Your task to perform on an android device: turn pop-ups on in chrome Image 0: 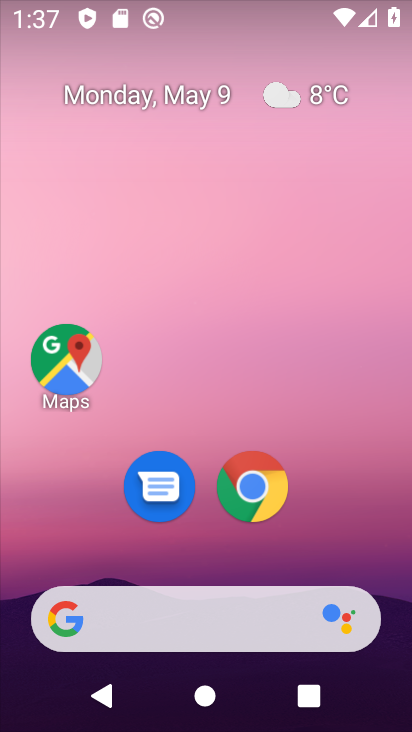
Step 0: click (269, 485)
Your task to perform on an android device: turn pop-ups on in chrome Image 1: 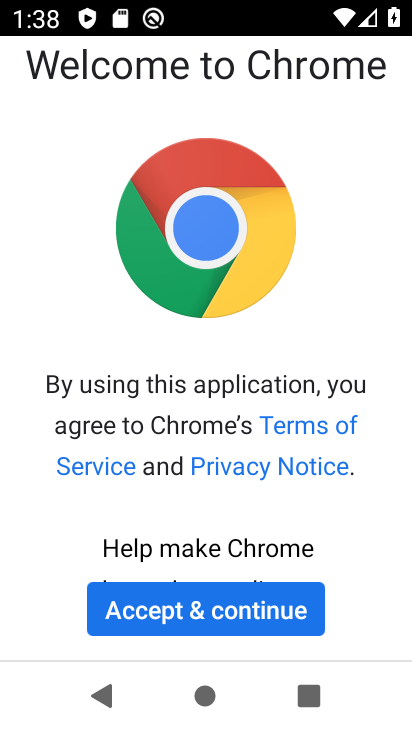
Step 1: click (254, 624)
Your task to perform on an android device: turn pop-ups on in chrome Image 2: 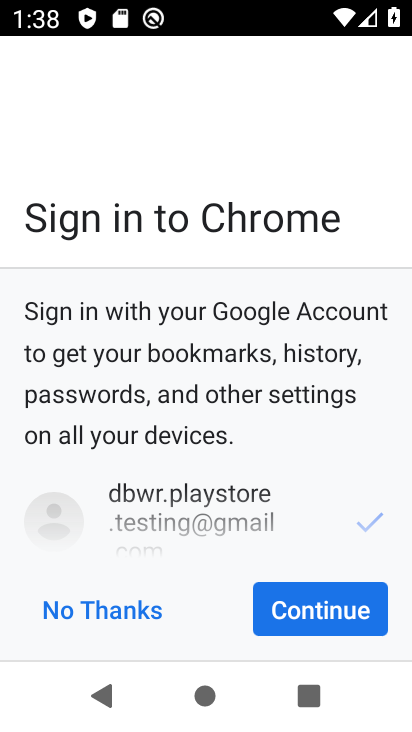
Step 2: click (306, 614)
Your task to perform on an android device: turn pop-ups on in chrome Image 3: 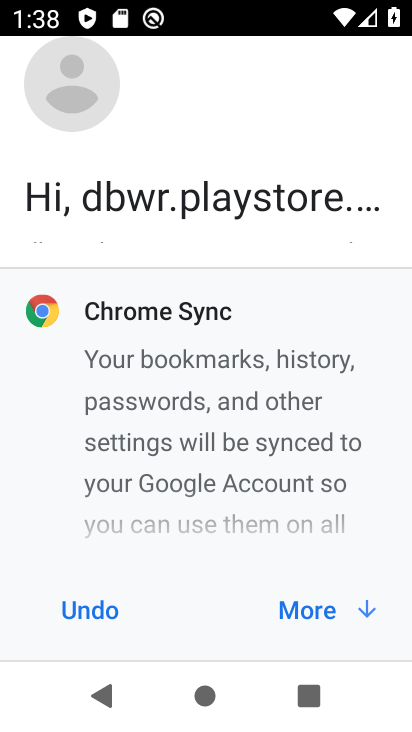
Step 3: click (309, 612)
Your task to perform on an android device: turn pop-ups on in chrome Image 4: 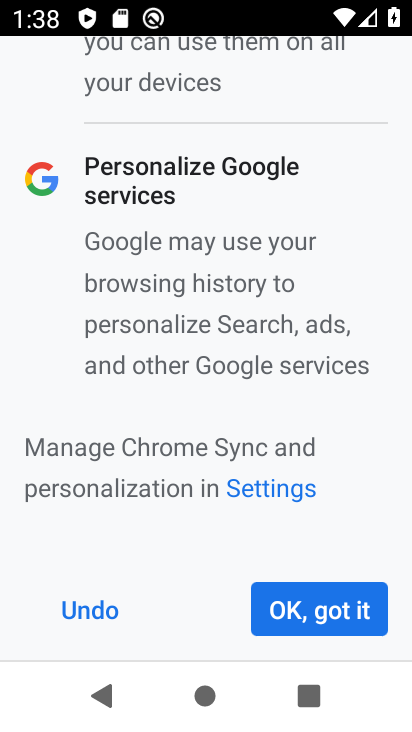
Step 4: click (309, 612)
Your task to perform on an android device: turn pop-ups on in chrome Image 5: 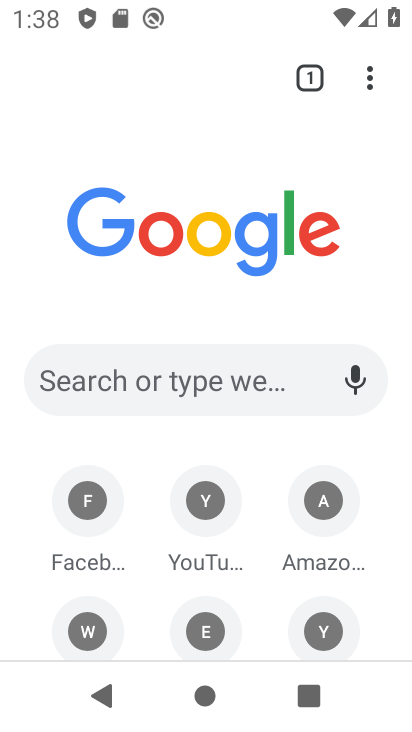
Step 5: click (369, 74)
Your task to perform on an android device: turn pop-ups on in chrome Image 6: 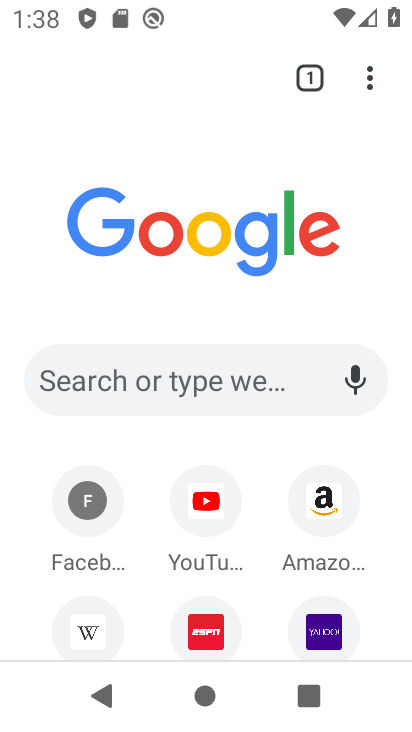
Step 6: click (369, 82)
Your task to perform on an android device: turn pop-ups on in chrome Image 7: 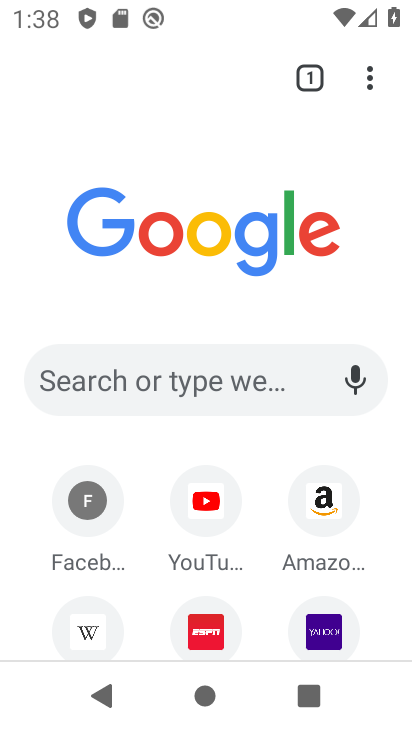
Step 7: click (374, 85)
Your task to perform on an android device: turn pop-ups on in chrome Image 8: 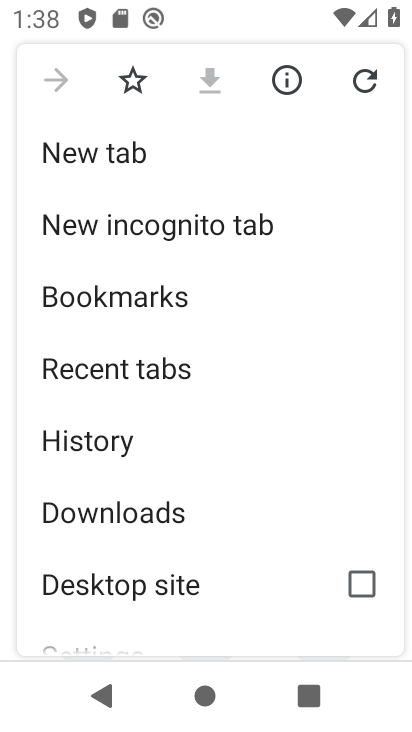
Step 8: drag from (203, 600) to (231, 129)
Your task to perform on an android device: turn pop-ups on in chrome Image 9: 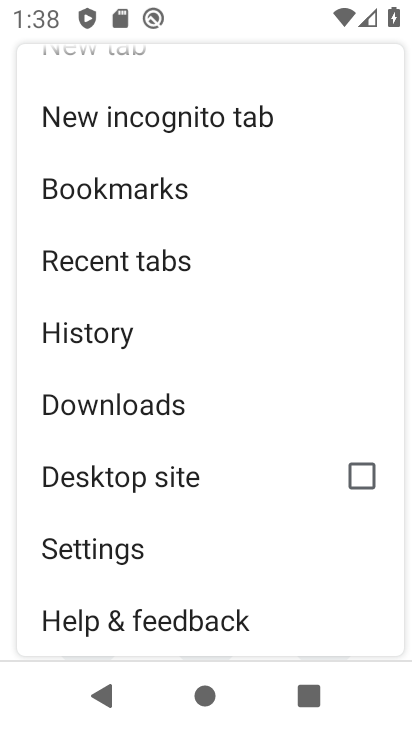
Step 9: click (146, 544)
Your task to perform on an android device: turn pop-ups on in chrome Image 10: 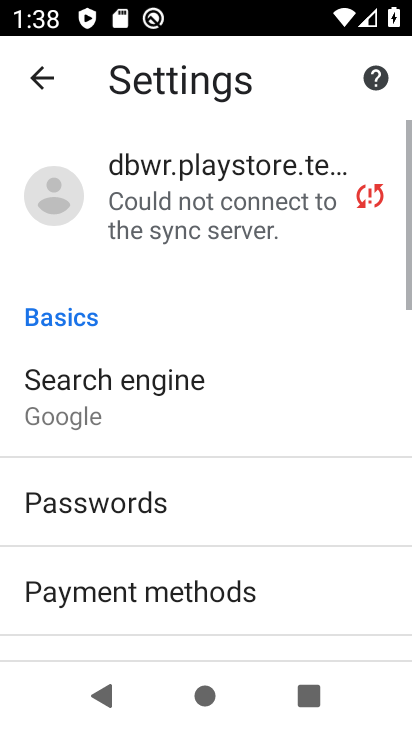
Step 10: drag from (268, 536) to (295, 81)
Your task to perform on an android device: turn pop-ups on in chrome Image 11: 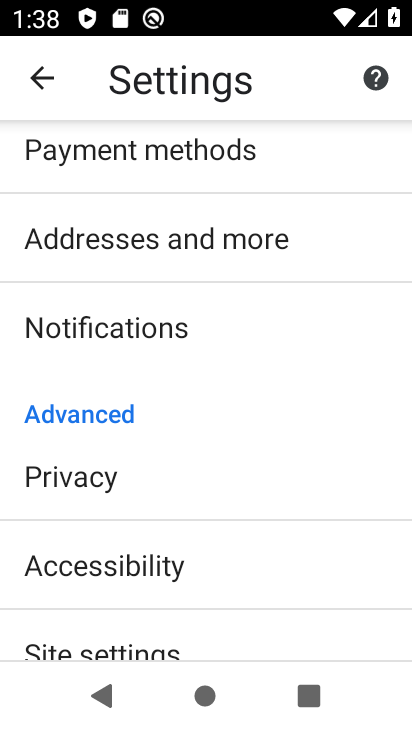
Step 11: drag from (263, 546) to (303, 179)
Your task to perform on an android device: turn pop-ups on in chrome Image 12: 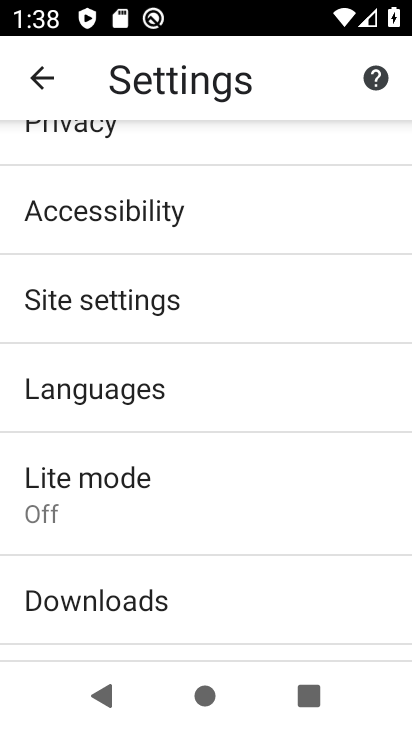
Step 12: click (202, 299)
Your task to perform on an android device: turn pop-ups on in chrome Image 13: 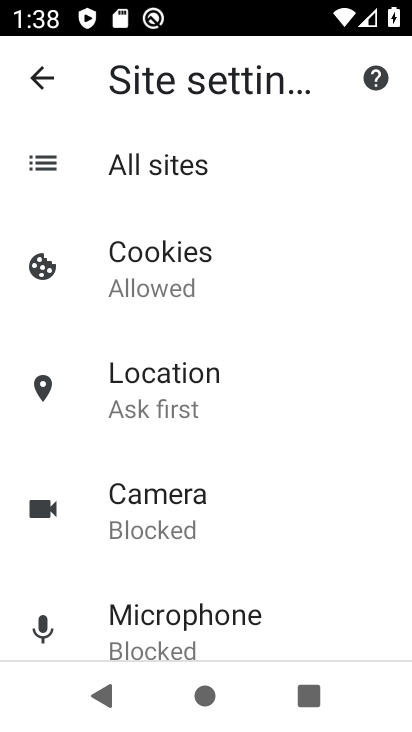
Step 13: drag from (188, 588) to (246, 130)
Your task to perform on an android device: turn pop-ups on in chrome Image 14: 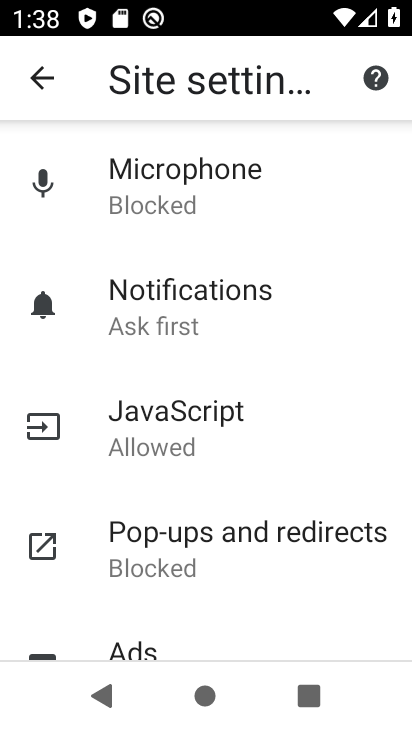
Step 14: click (198, 518)
Your task to perform on an android device: turn pop-ups on in chrome Image 15: 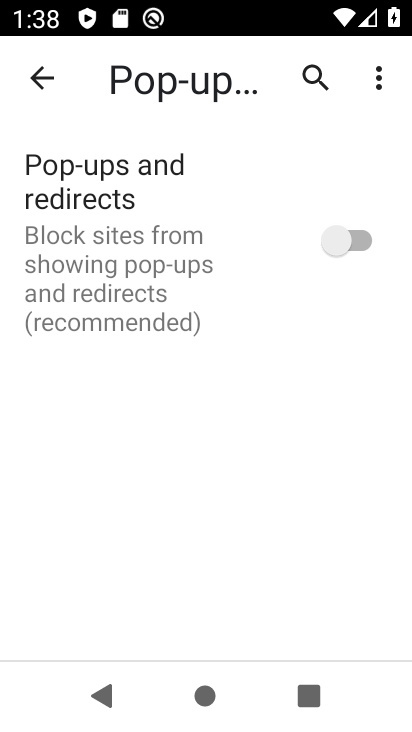
Step 15: click (344, 233)
Your task to perform on an android device: turn pop-ups on in chrome Image 16: 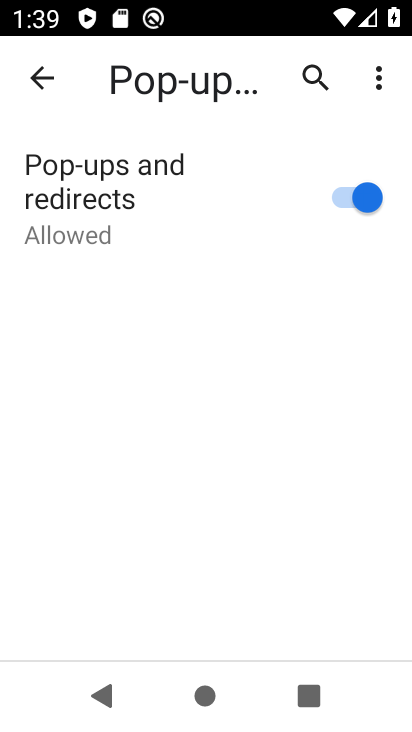
Step 16: task complete